Your task to perform on an android device: Open settings Image 0: 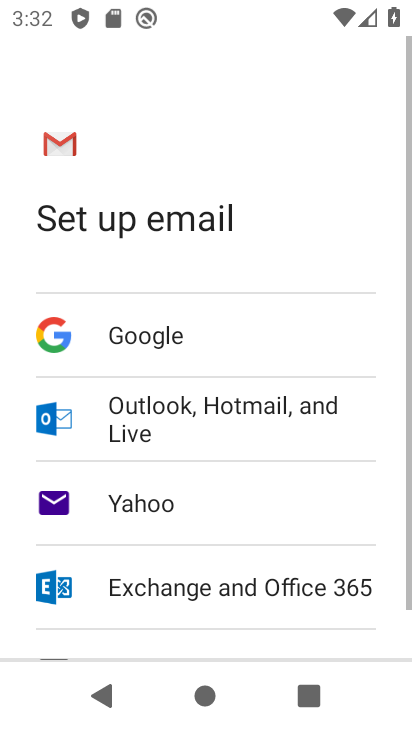
Step 0: press home button
Your task to perform on an android device: Open settings Image 1: 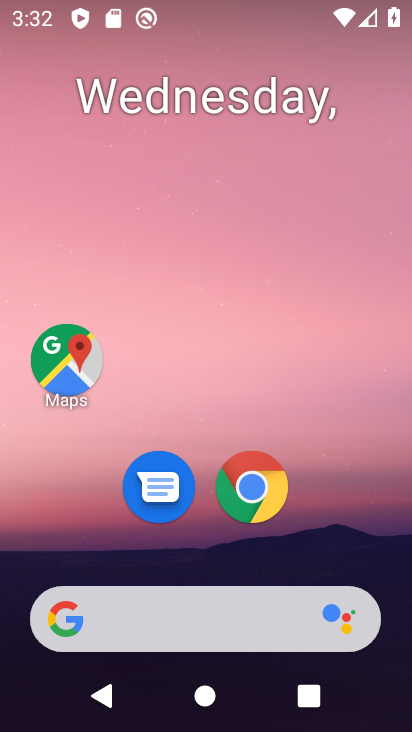
Step 1: drag from (370, 569) to (306, 66)
Your task to perform on an android device: Open settings Image 2: 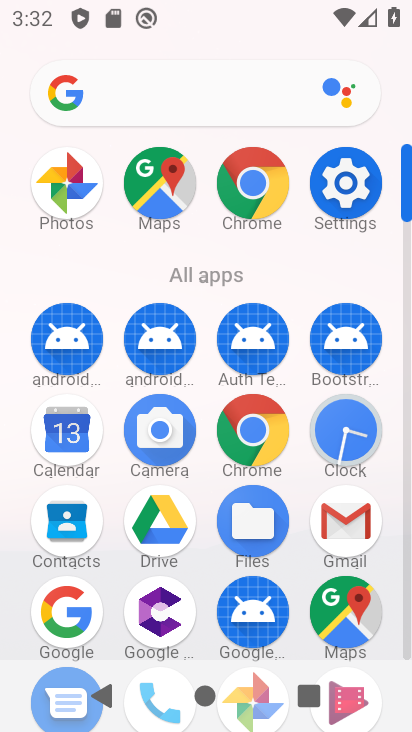
Step 2: click (362, 168)
Your task to perform on an android device: Open settings Image 3: 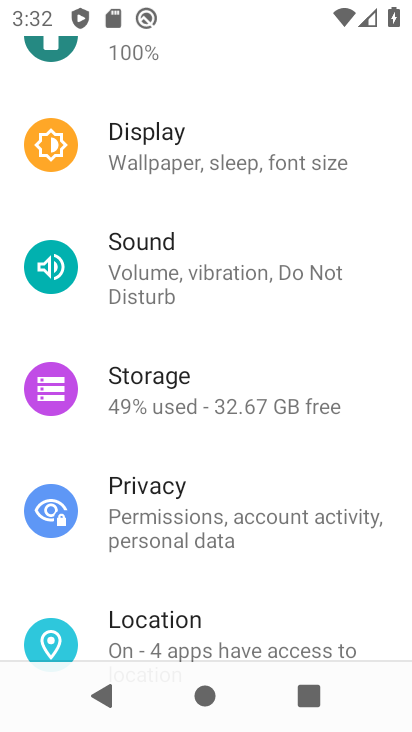
Step 3: task complete